Your task to perform on an android device: Go to Maps Image 0: 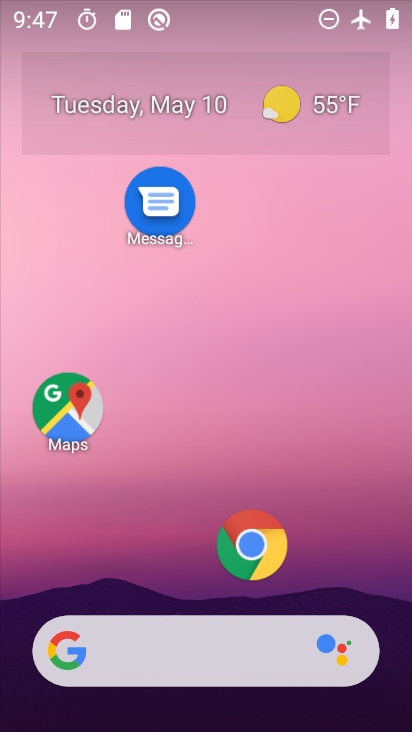
Step 0: click (42, 431)
Your task to perform on an android device: Go to Maps Image 1: 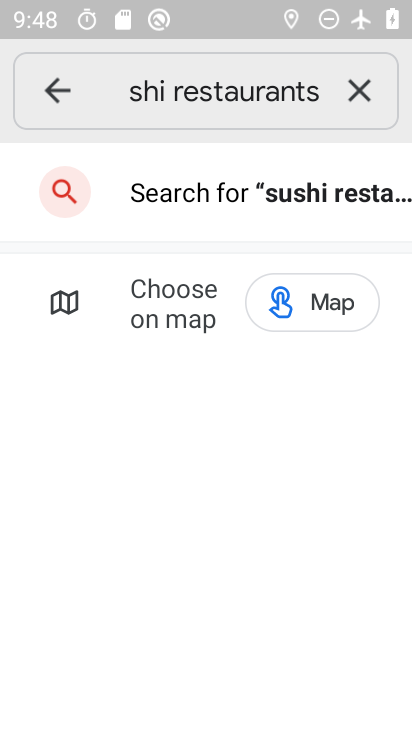
Step 1: task complete